Your task to perform on an android device: set the timer Image 0: 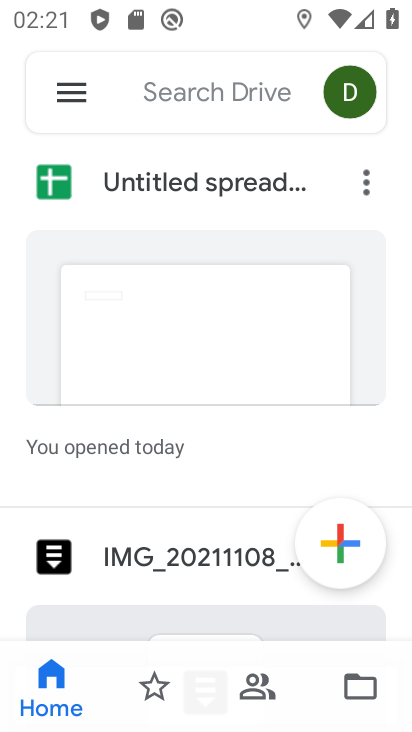
Step 0: press home button
Your task to perform on an android device: set the timer Image 1: 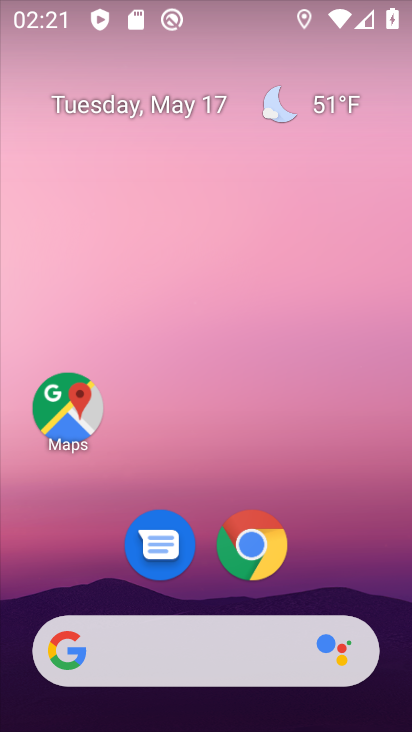
Step 1: drag from (199, 551) to (245, 92)
Your task to perform on an android device: set the timer Image 2: 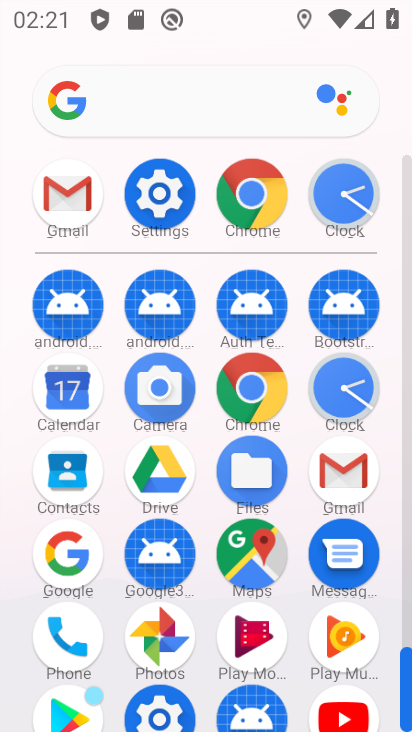
Step 2: click (341, 399)
Your task to perform on an android device: set the timer Image 3: 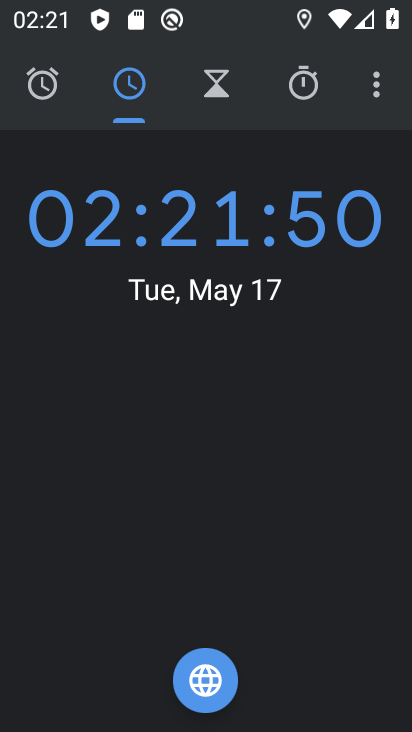
Step 3: click (216, 91)
Your task to perform on an android device: set the timer Image 4: 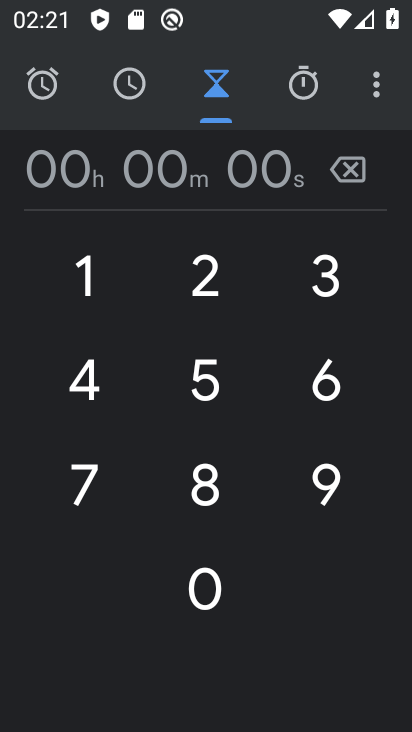
Step 4: click (204, 407)
Your task to perform on an android device: set the timer Image 5: 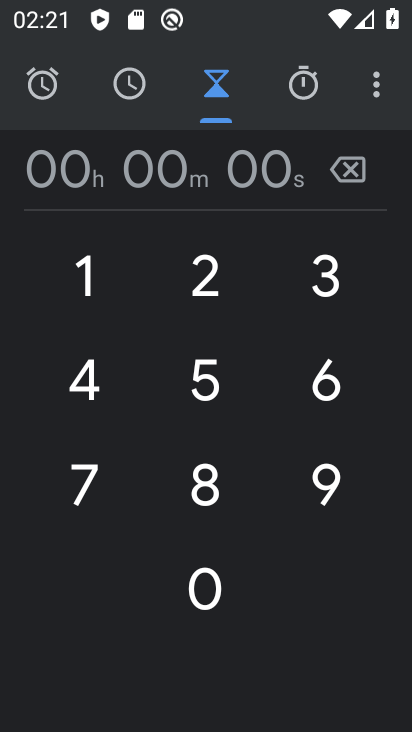
Step 5: click (204, 407)
Your task to perform on an android device: set the timer Image 6: 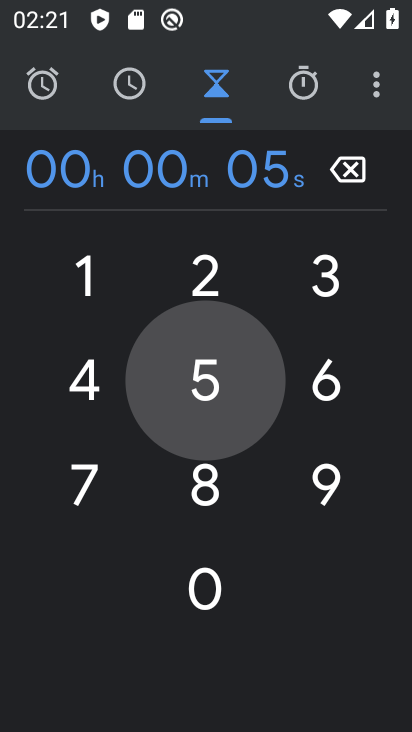
Step 6: click (204, 407)
Your task to perform on an android device: set the timer Image 7: 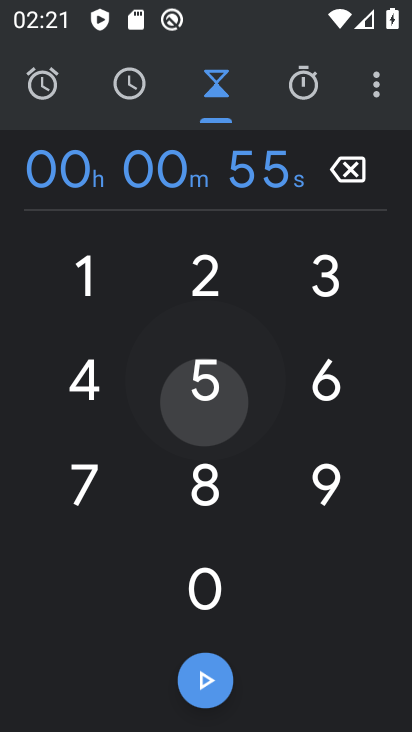
Step 7: click (204, 407)
Your task to perform on an android device: set the timer Image 8: 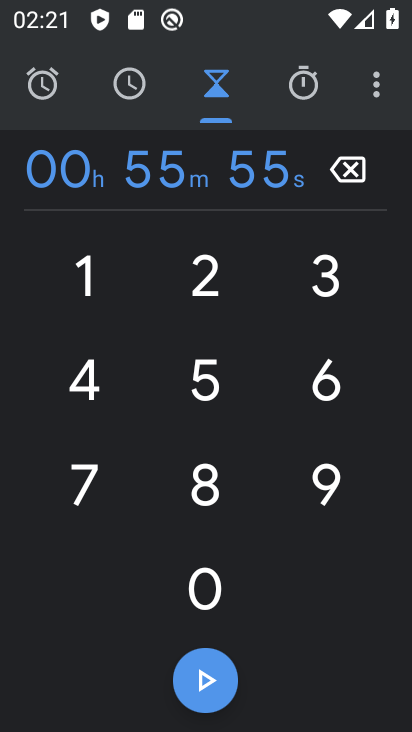
Step 8: click (212, 687)
Your task to perform on an android device: set the timer Image 9: 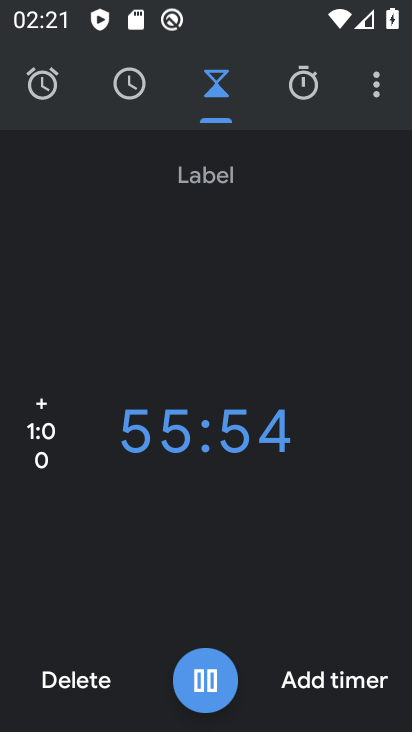
Step 9: task complete